Your task to perform on an android device: turn off smart reply in the gmail app Image 0: 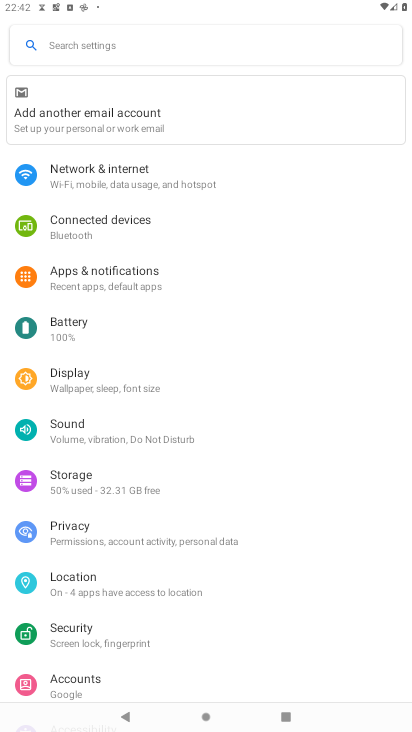
Step 0: press home button
Your task to perform on an android device: turn off smart reply in the gmail app Image 1: 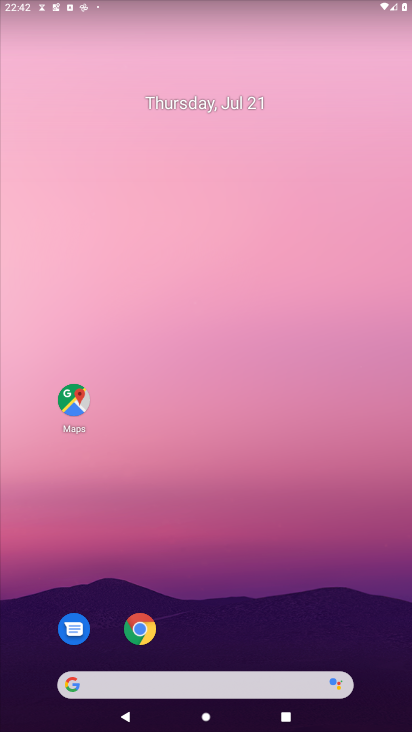
Step 1: drag from (241, 539) to (256, 155)
Your task to perform on an android device: turn off smart reply in the gmail app Image 2: 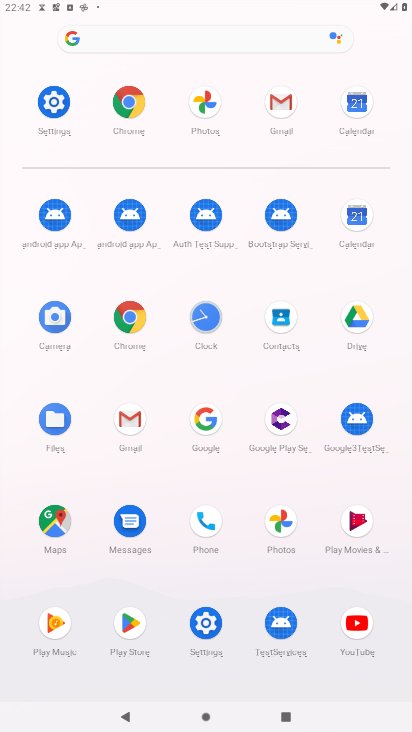
Step 2: click (147, 417)
Your task to perform on an android device: turn off smart reply in the gmail app Image 3: 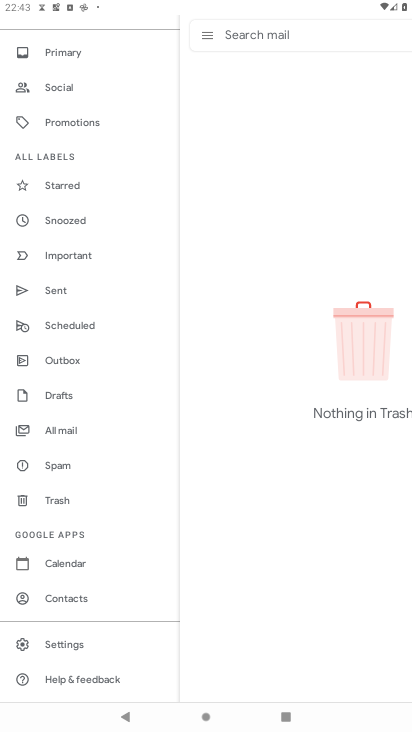
Step 3: click (82, 656)
Your task to perform on an android device: turn off smart reply in the gmail app Image 4: 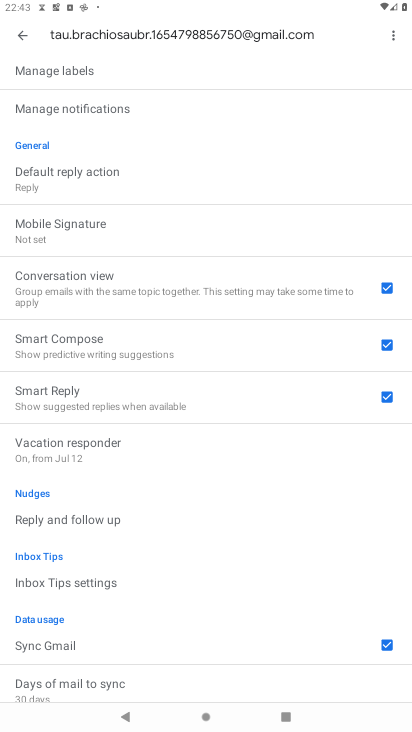
Step 4: drag from (153, 612) to (157, 443)
Your task to perform on an android device: turn off smart reply in the gmail app Image 5: 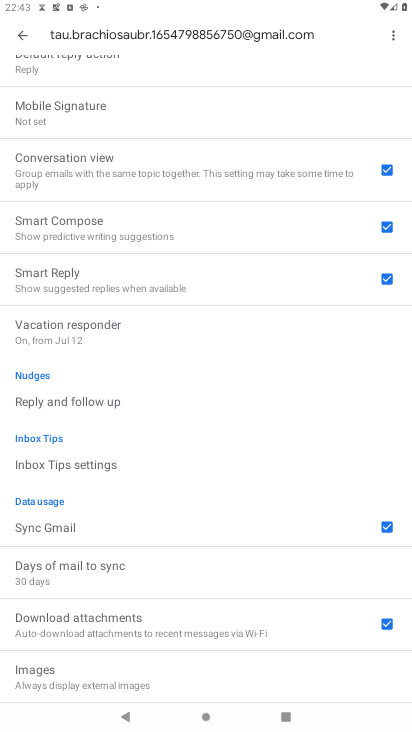
Step 5: click (383, 283)
Your task to perform on an android device: turn off smart reply in the gmail app Image 6: 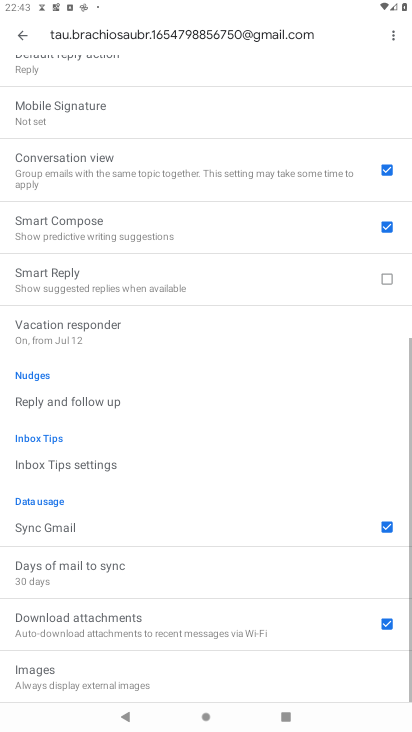
Step 6: task complete